Your task to perform on an android device: change the clock display to show seconds Image 0: 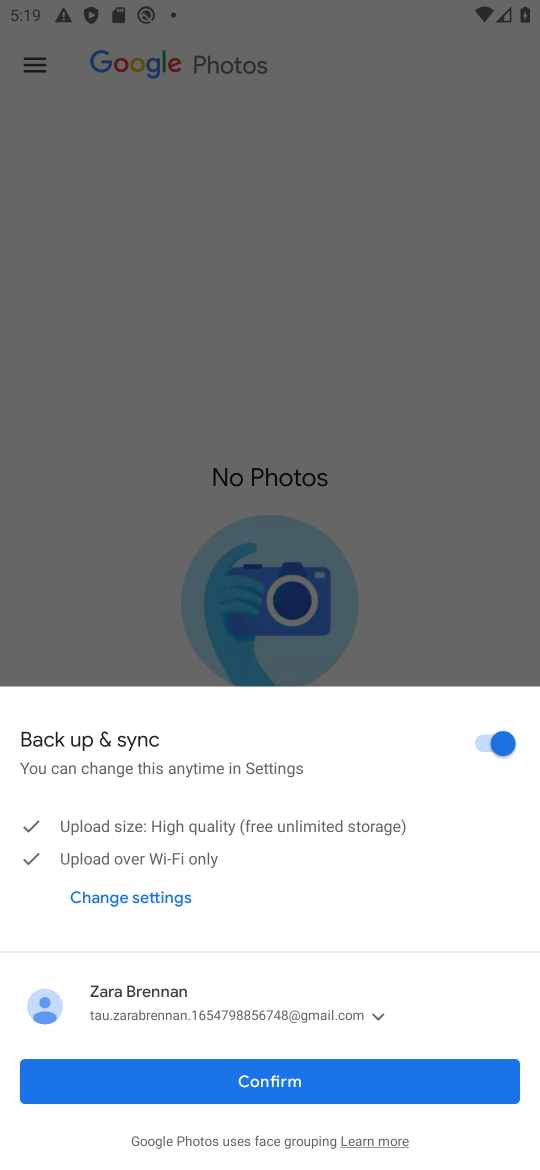
Step 0: press home button
Your task to perform on an android device: change the clock display to show seconds Image 1: 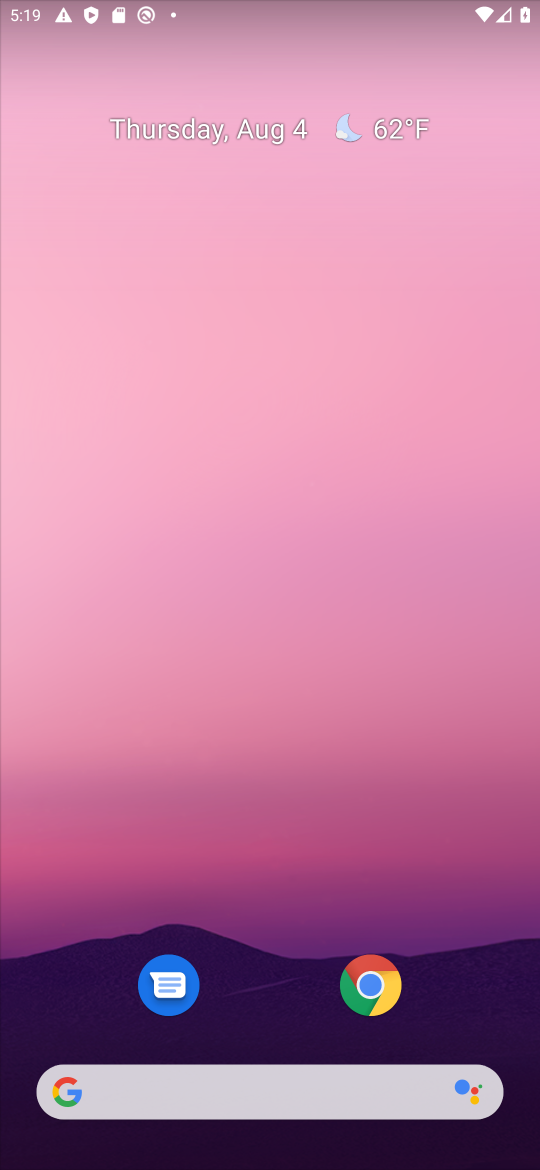
Step 1: drag from (237, 1084) to (322, 260)
Your task to perform on an android device: change the clock display to show seconds Image 2: 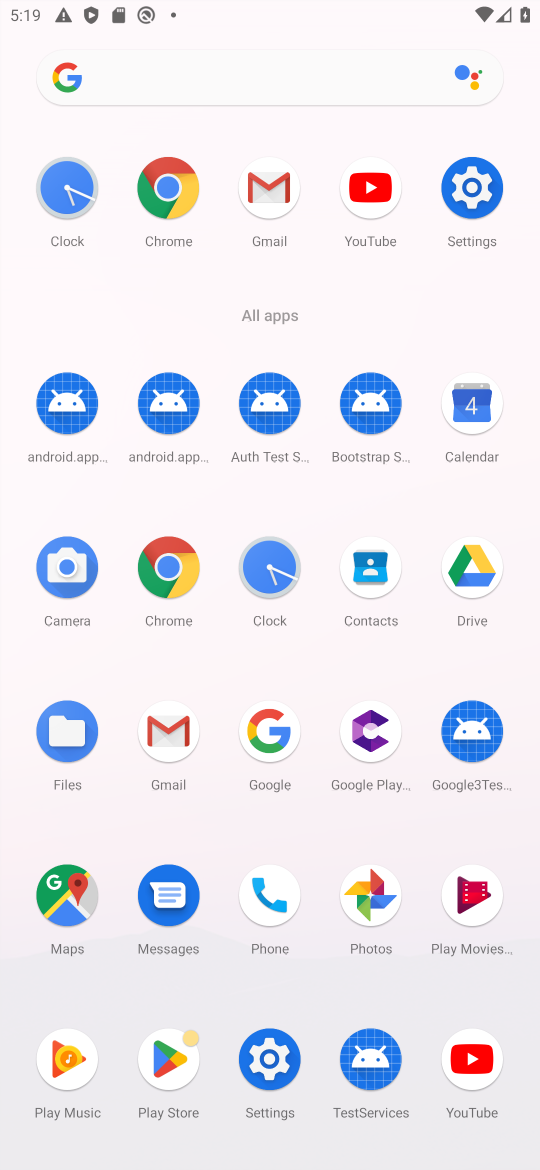
Step 2: click (263, 574)
Your task to perform on an android device: change the clock display to show seconds Image 3: 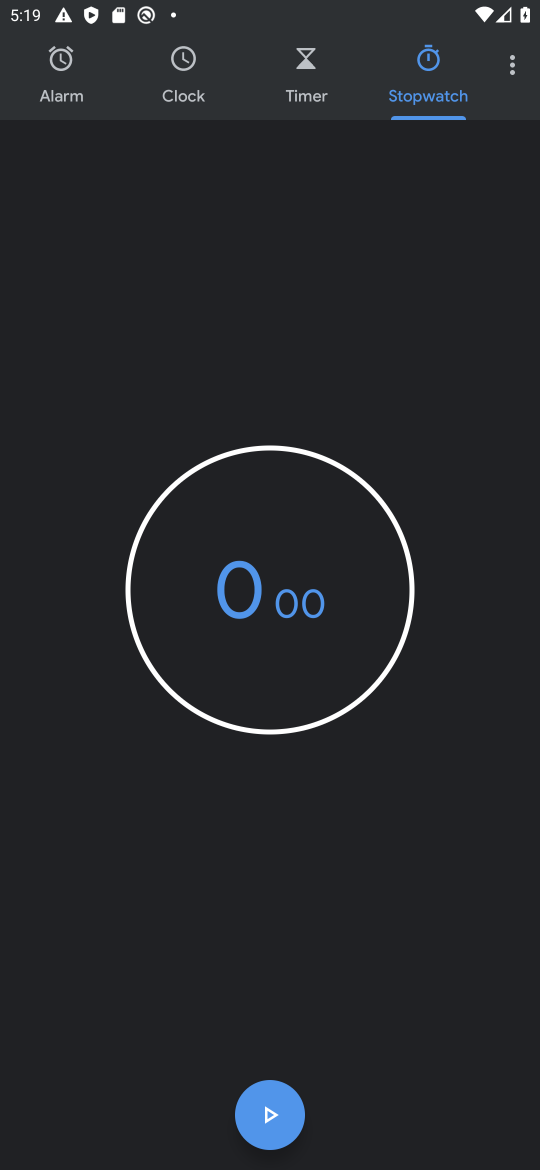
Step 3: click (499, 62)
Your task to perform on an android device: change the clock display to show seconds Image 4: 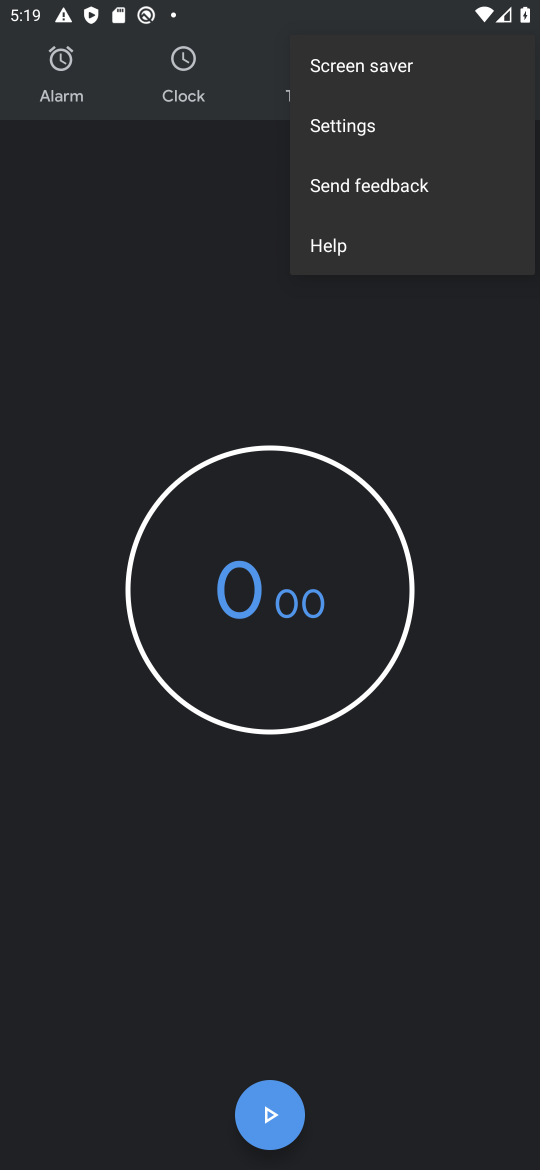
Step 4: click (402, 125)
Your task to perform on an android device: change the clock display to show seconds Image 5: 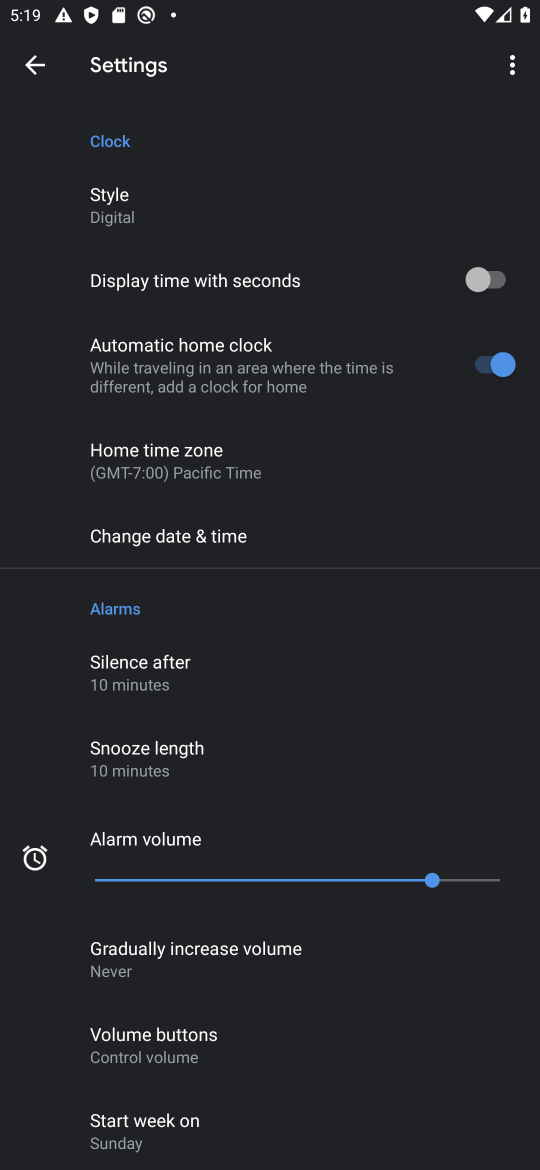
Step 5: click (253, 280)
Your task to perform on an android device: change the clock display to show seconds Image 6: 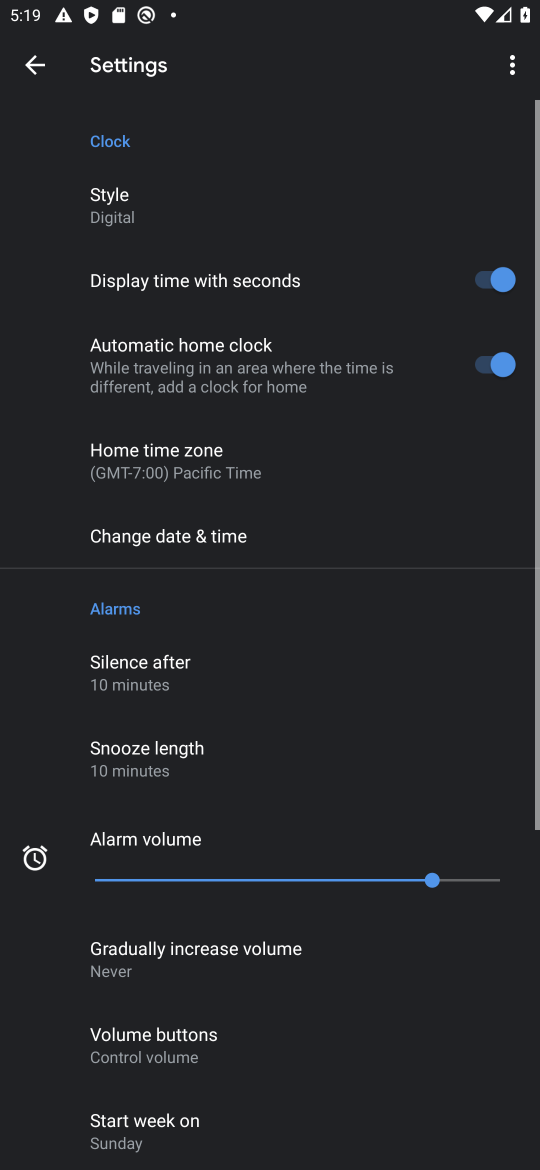
Step 6: task complete